Your task to perform on an android device: change notification settings in the gmail app Image 0: 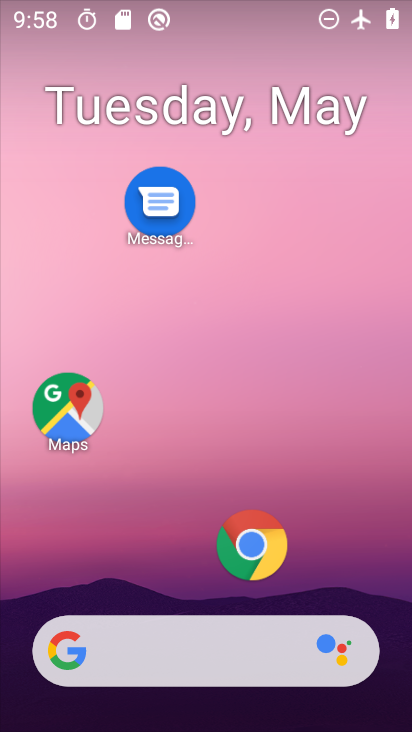
Step 0: drag from (177, 576) to (266, 77)
Your task to perform on an android device: change notification settings in the gmail app Image 1: 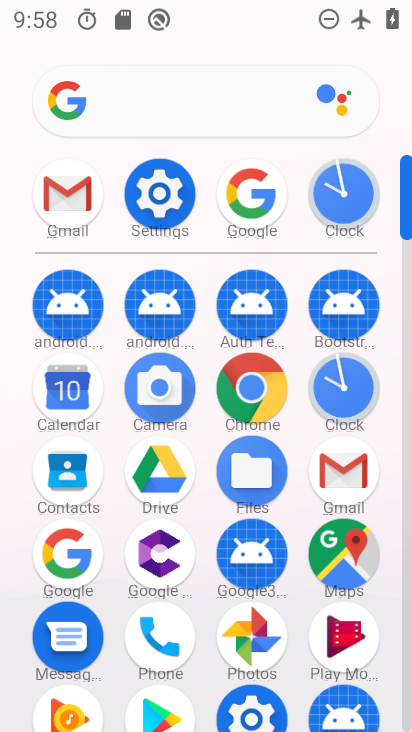
Step 1: click (95, 187)
Your task to perform on an android device: change notification settings in the gmail app Image 2: 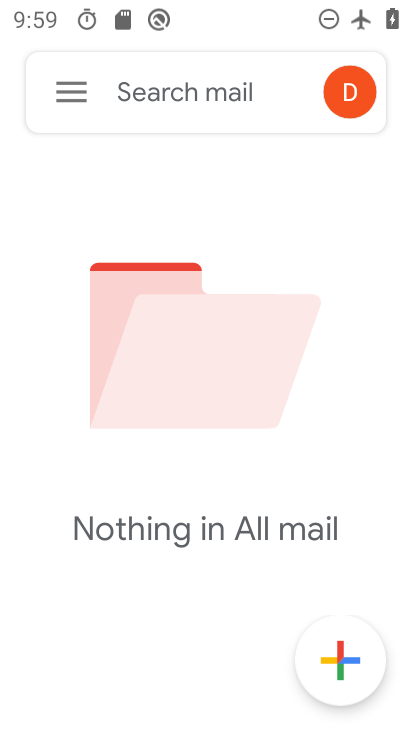
Step 2: click (63, 76)
Your task to perform on an android device: change notification settings in the gmail app Image 3: 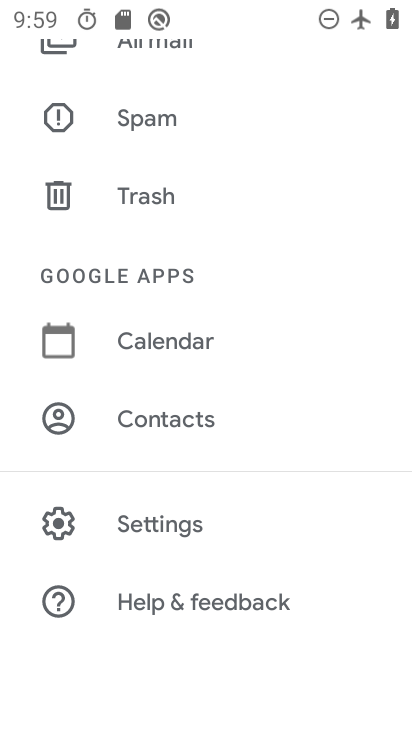
Step 3: click (176, 516)
Your task to perform on an android device: change notification settings in the gmail app Image 4: 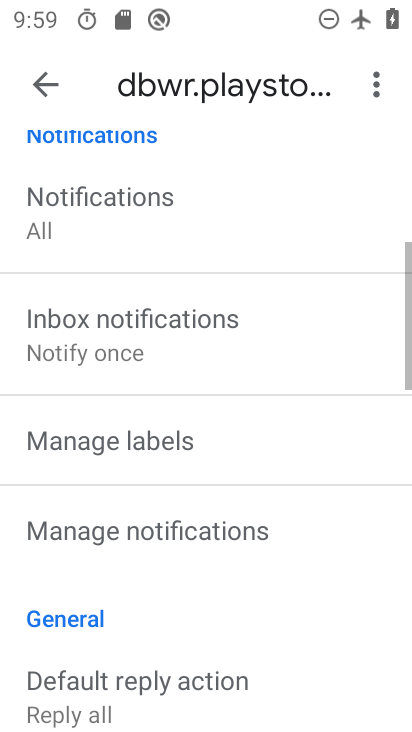
Step 4: drag from (224, 595) to (216, 532)
Your task to perform on an android device: change notification settings in the gmail app Image 5: 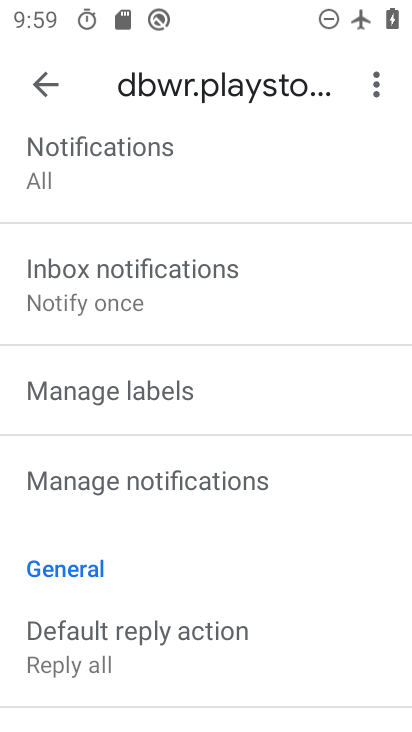
Step 5: click (209, 487)
Your task to perform on an android device: change notification settings in the gmail app Image 6: 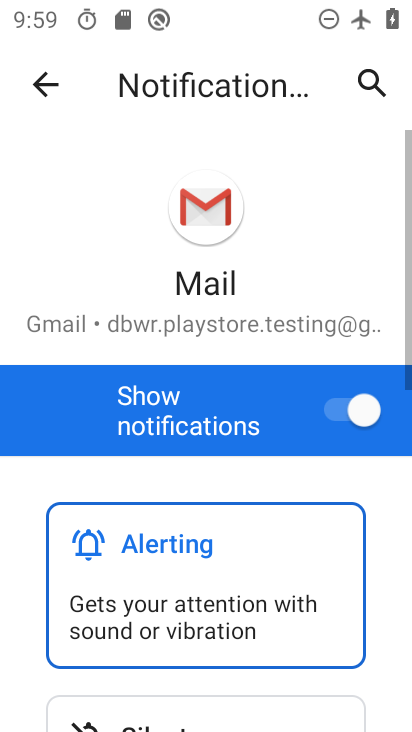
Step 6: drag from (216, 655) to (195, 314)
Your task to perform on an android device: change notification settings in the gmail app Image 7: 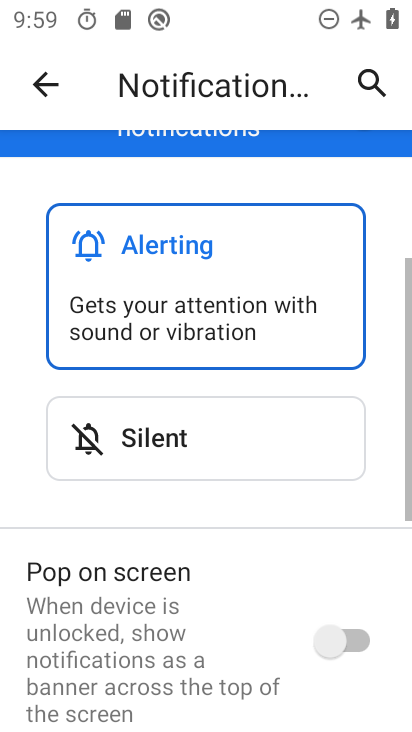
Step 7: drag from (190, 674) to (188, 378)
Your task to perform on an android device: change notification settings in the gmail app Image 8: 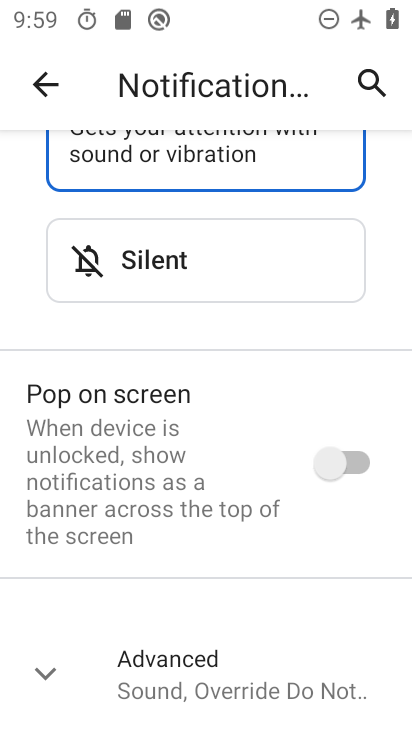
Step 8: drag from (192, 656) to (200, 363)
Your task to perform on an android device: change notification settings in the gmail app Image 9: 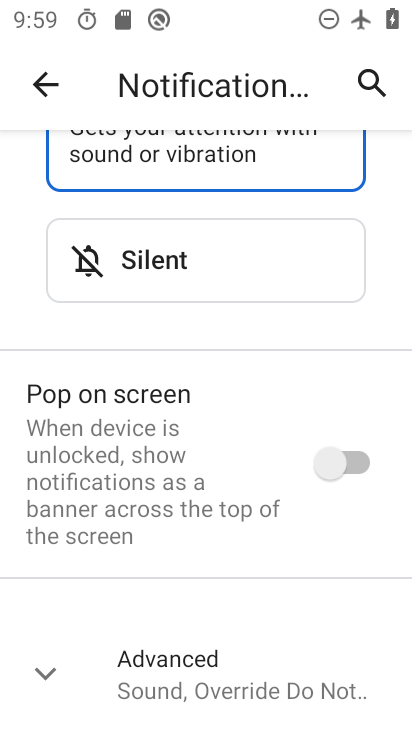
Step 9: drag from (226, 333) to (233, 617)
Your task to perform on an android device: change notification settings in the gmail app Image 10: 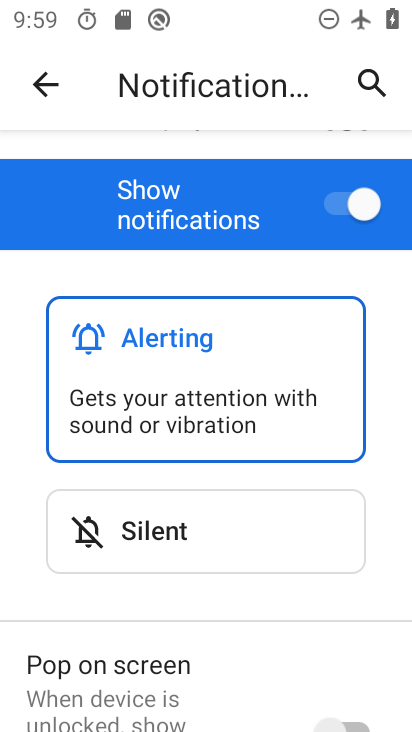
Step 10: drag from (213, 435) to (235, 611)
Your task to perform on an android device: change notification settings in the gmail app Image 11: 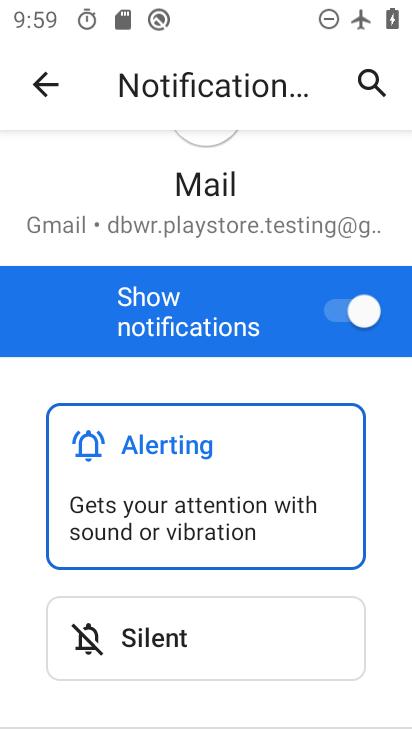
Step 11: click (385, 307)
Your task to perform on an android device: change notification settings in the gmail app Image 12: 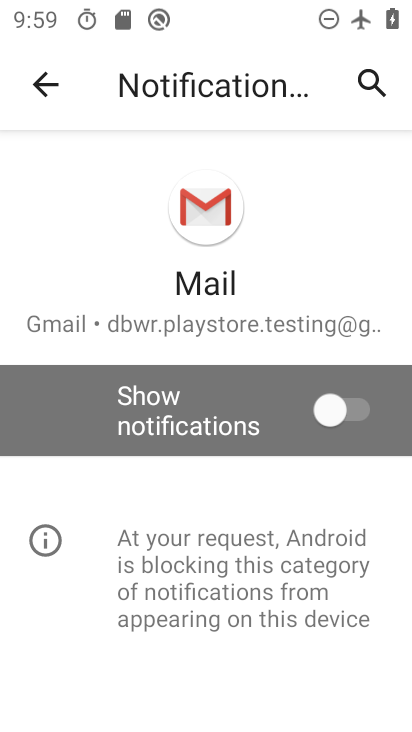
Step 12: task complete